Your task to perform on an android device: change your default location settings in chrome Image 0: 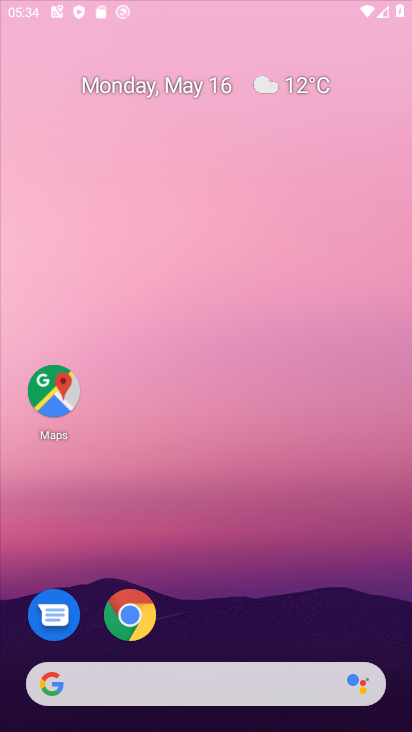
Step 0: click (180, 56)
Your task to perform on an android device: change your default location settings in chrome Image 1: 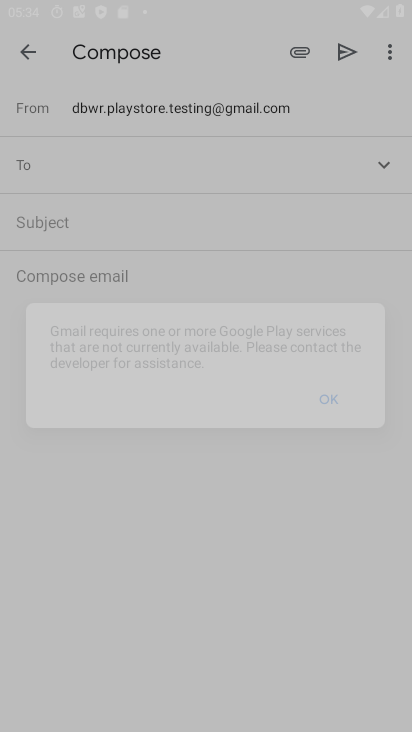
Step 1: drag from (230, 478) to (146, 0)
Your task to perform on an android device: change your default location settings in chrome Image 2: 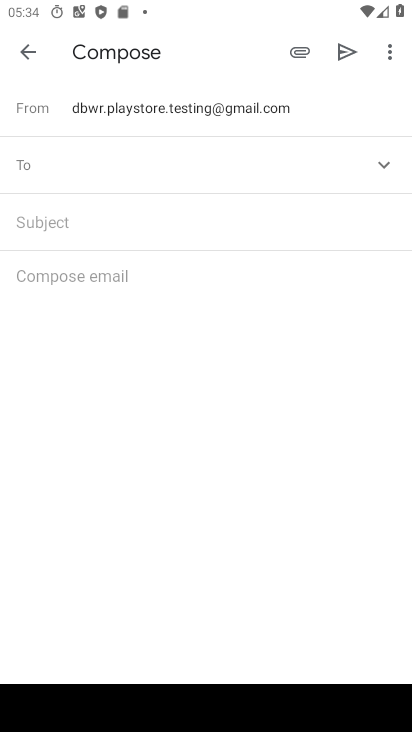
Step 2: click (26, 48)
Your task to perform on an android device: change your default location settings in chrome Image 3: 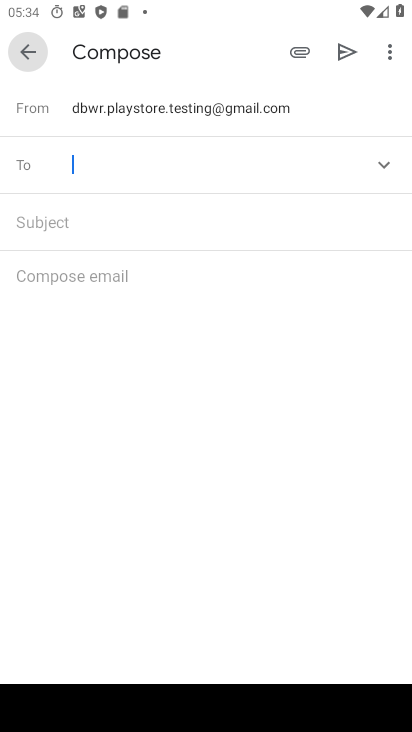
Step 3: click (26, 48)
Your task to perform on an android device: change your default location settings in chrome Image 4: 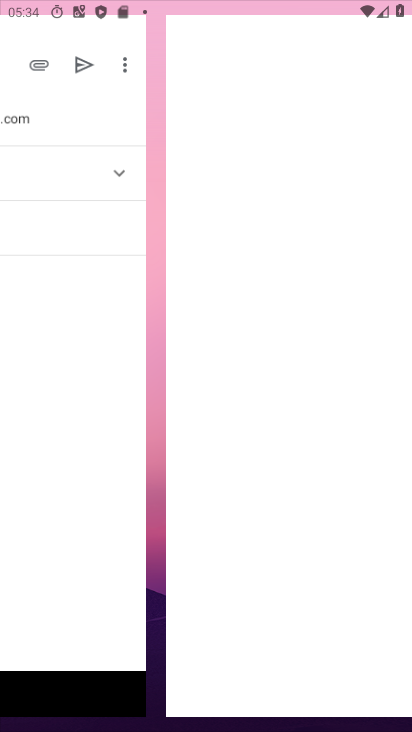
Step 4: click (26, 48)
Your task to perform on an android device: change your default location settings in chrome Image 5: 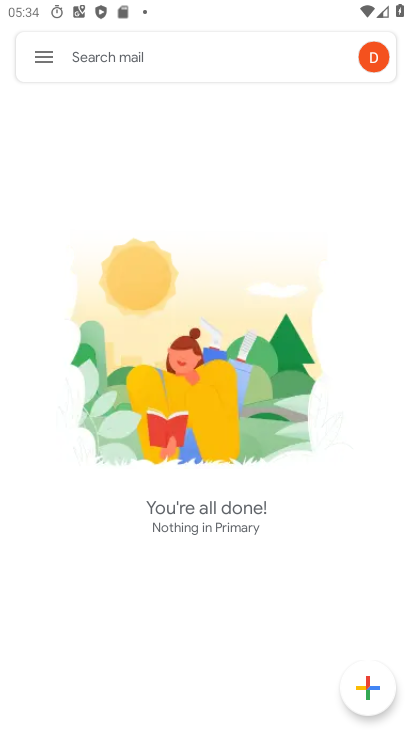
Step 5: click (38, 51)
Your task to perform on an android device: change your default location settings in chrome Image 6: 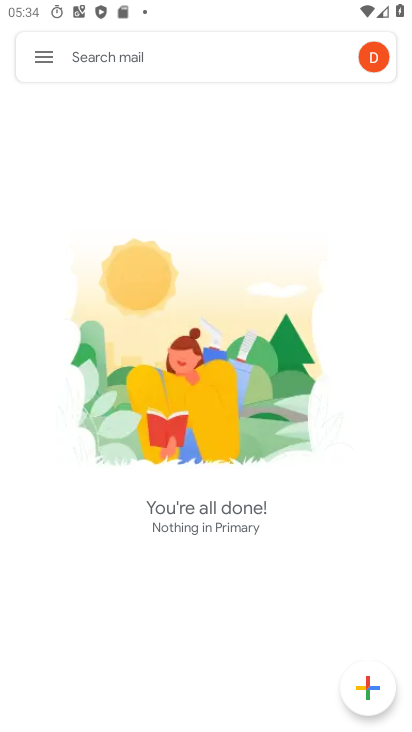
Step 6: click (37, 64)
Your task to perform on an android device: change your default location settings in chrome Image 7: 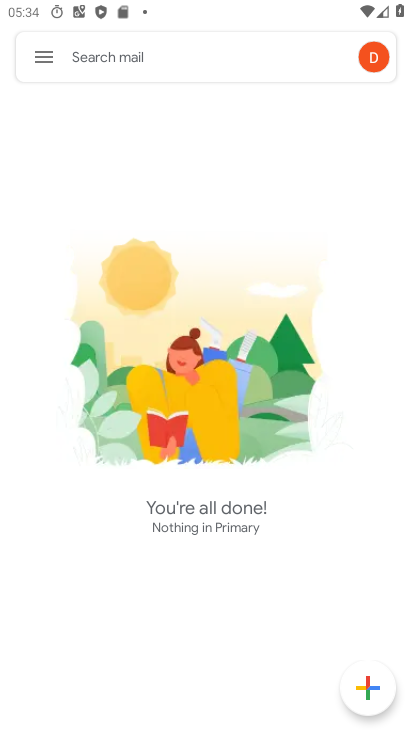
Step 7: click (37, 64)
Your task to perform on an android device: change your default location settings in chrome Image 8: 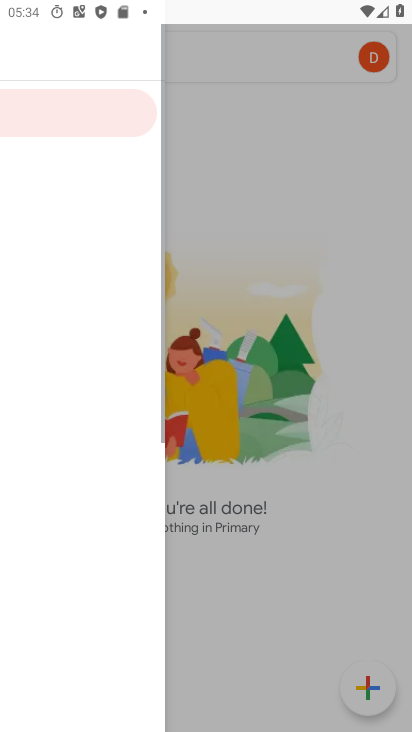
Step 8: click (37, 64)
Your task to perform on an android device: change your default location settings in chrome Image 9: 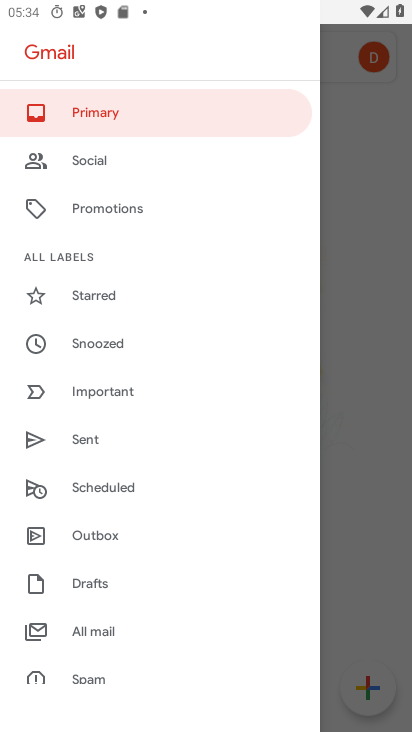
Step 9: press back button
Your task to perform on an android device: change your default location settings in chrome Image 10: 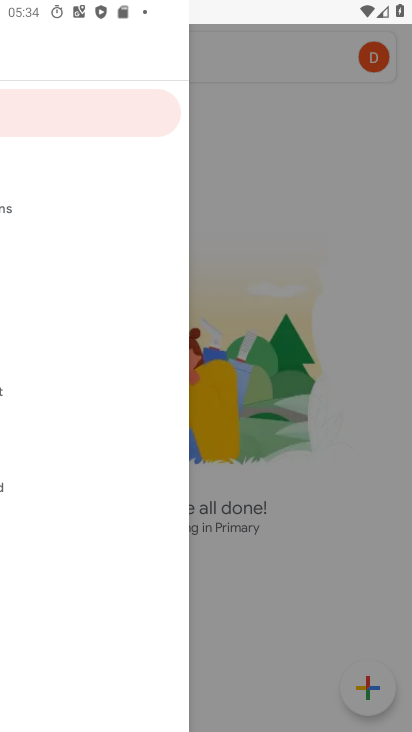
Step 10: press back button
Your task to perform on an android device: change your default location settings in chrome Image 11: 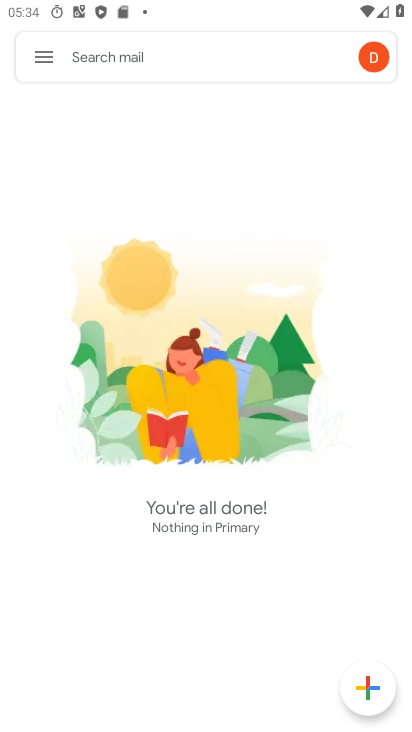
Step 11: press back button
Your task to perform on an android device: change your default location settings in chrome Image 12: 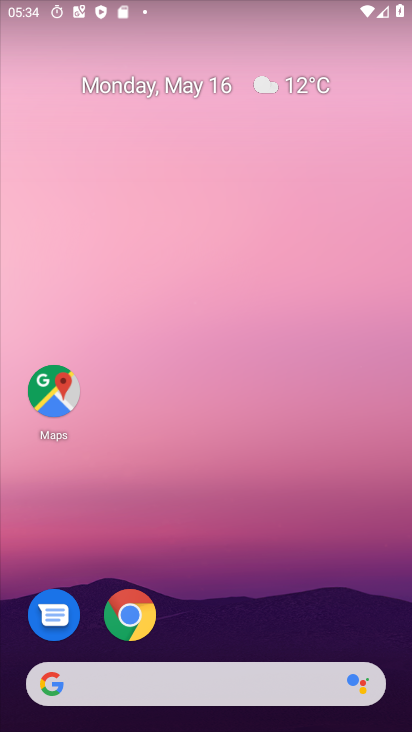
Step 12: press home button
Your task to perform on an android device: change your default location settings in chrome Image 13: 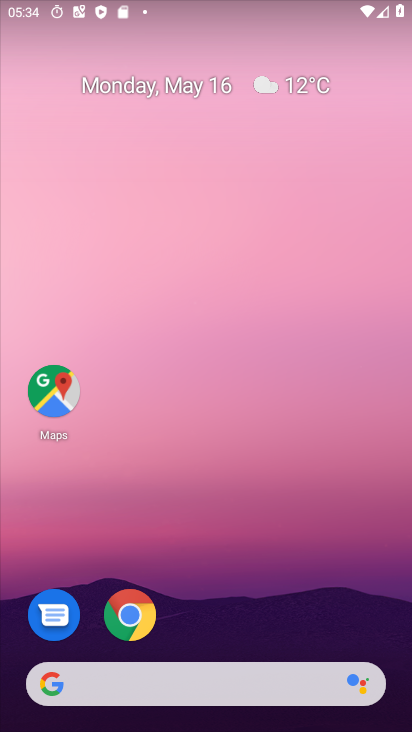
Step 13: drag from (261, 620) to (230, 29)
Your task to perform on an android device: change your default location settings in chrome Image 14: 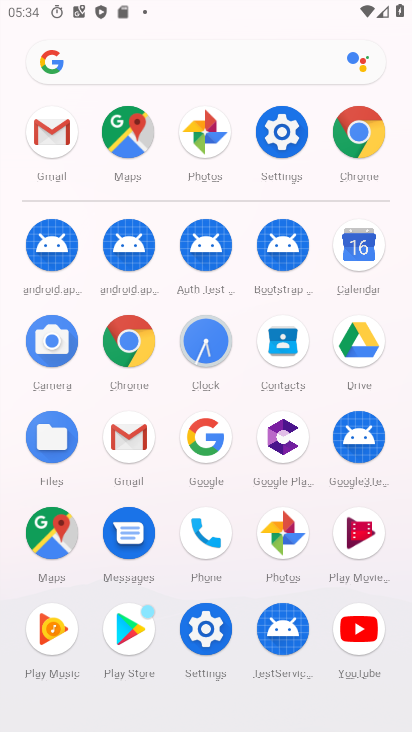
Step 14: click (358, 140)
Your task to perform on an android device: change your default location settings in chrome Image 15: 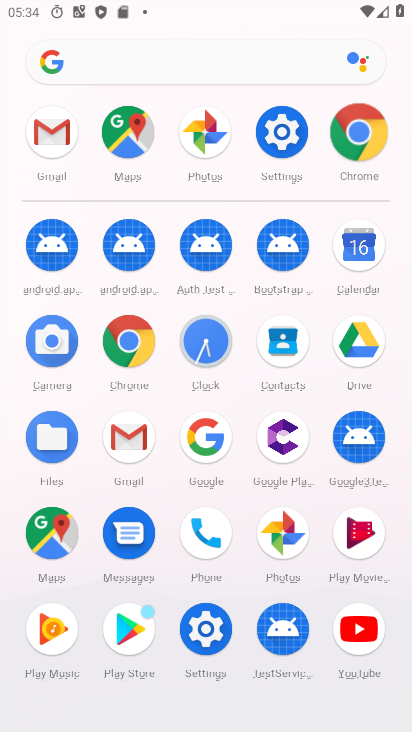
Step 15: click (358, 140)
Your task to perform on an android device: change your default location settings in chrome Image 16: 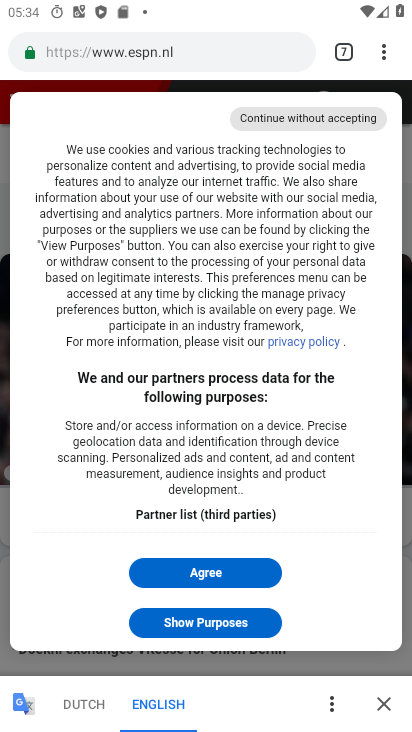
Step 16: drag from (380, 49) to (188, 654)
Your task to perform on an android device: change your default location settings in chrome Image 17: 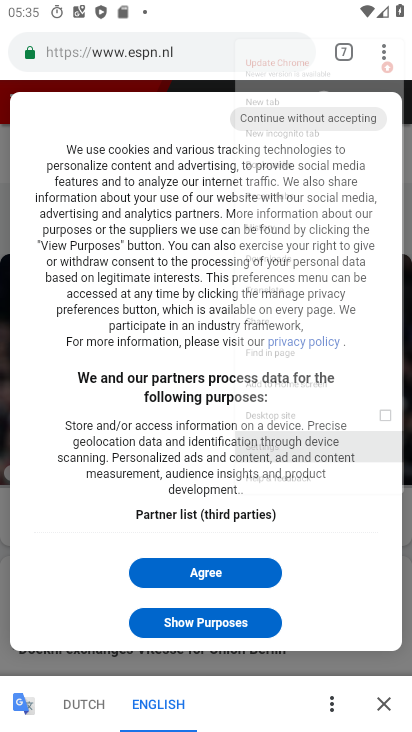
Step 17: click (192, 667)
Your task to perform on an android device: change your default location settings in chrome Image 18: 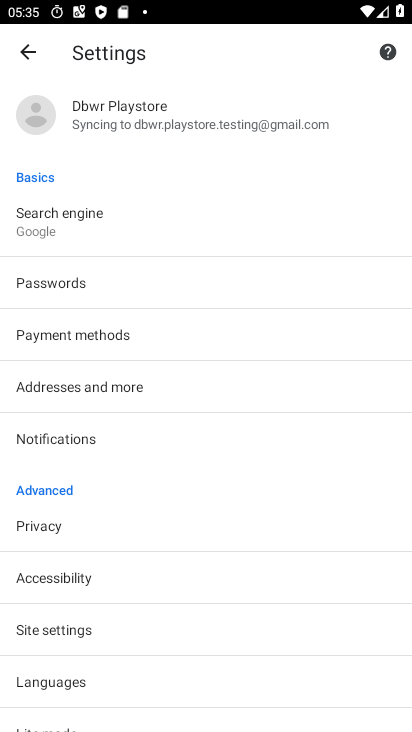
Step 18: drag from (128, 563) to (108, 365)
Your task to perform on an android device: change your default location settings in chrome Image 19: 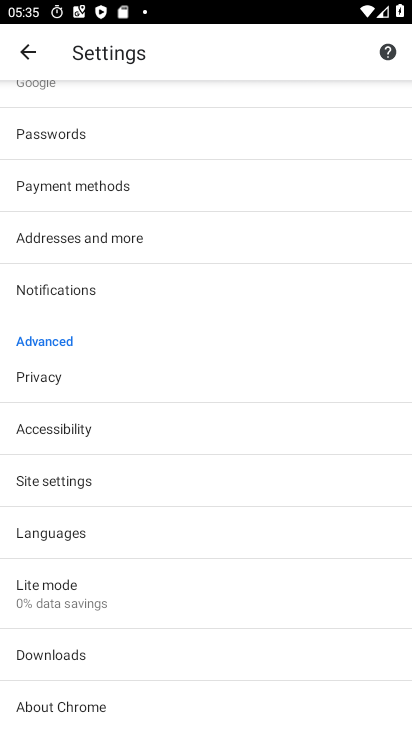
Step 19: click (58, 531)
Your task to perform on an android device: change your default location settings in chrome Image 20: 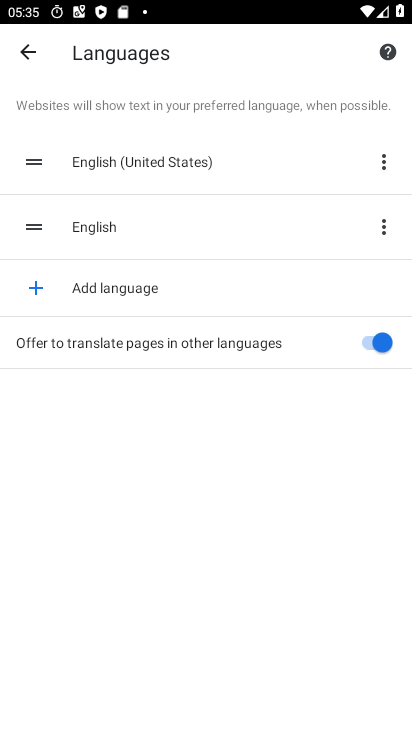
Step 20: click (380, 341)
Your task to perform on an android device: change your default location settings in chrome Image 21: 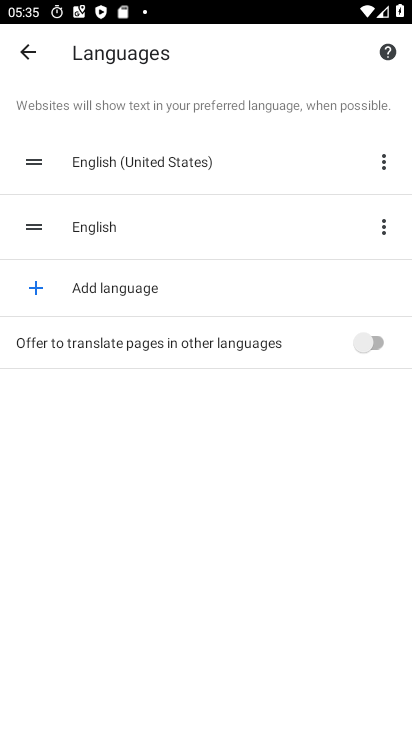
Step 21: task complete